Your task to perform on an android device: What's on my calendar today? Image 0: 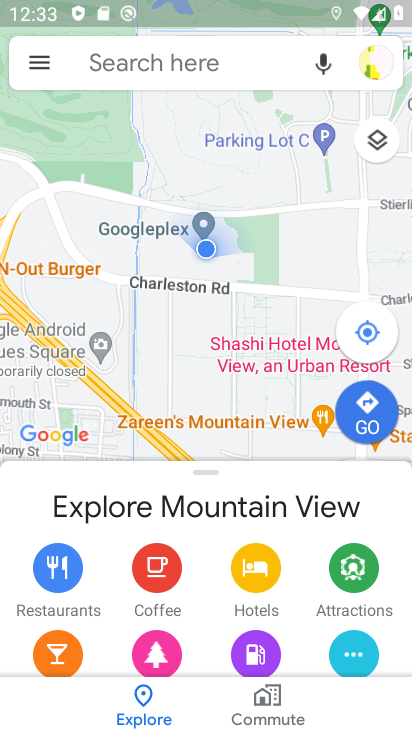
Step 0: press home button
Your task to perform on an android device: What's on my calendar today? Image 1: 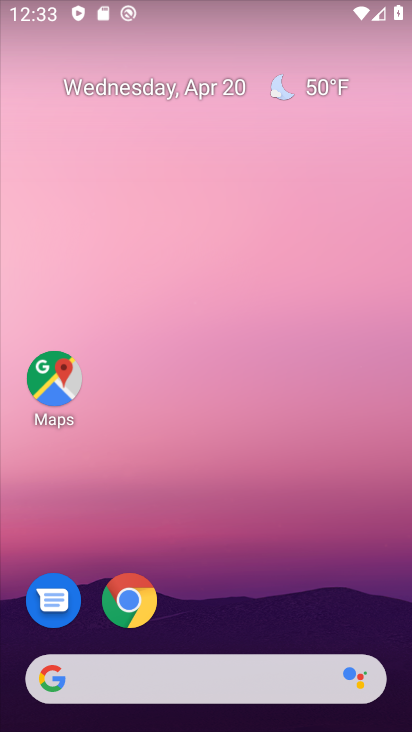
Step 1: drag from (270, 538) to (318, 74)
Your task to perform on an android device: What's on my calendar today? Image 2: 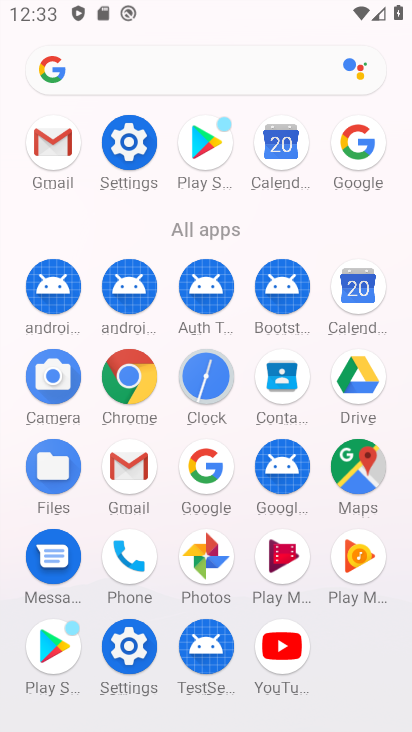
Step 2: click (276, 143)
Your task to perform on an android device: What's on my calendar today? Image 3: 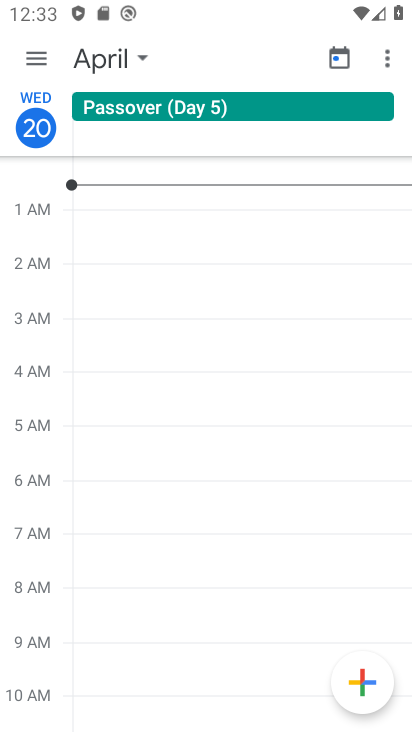
Step 3: task complete